Your task to perform on an android device: change the clock style Image 0: 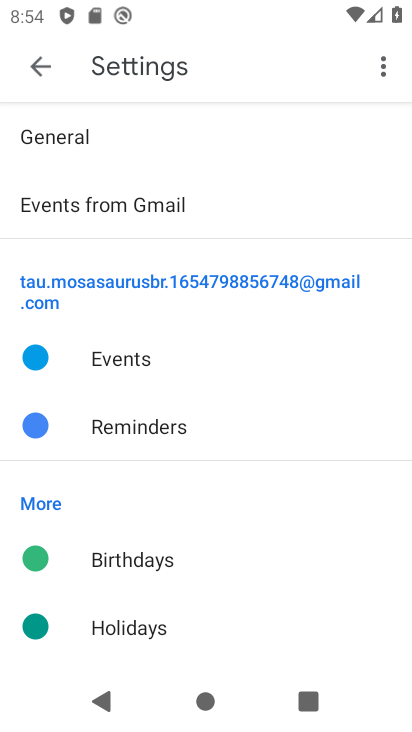
Step 0: press home button
Your task to perform on an android device: change the clock style Image 1: 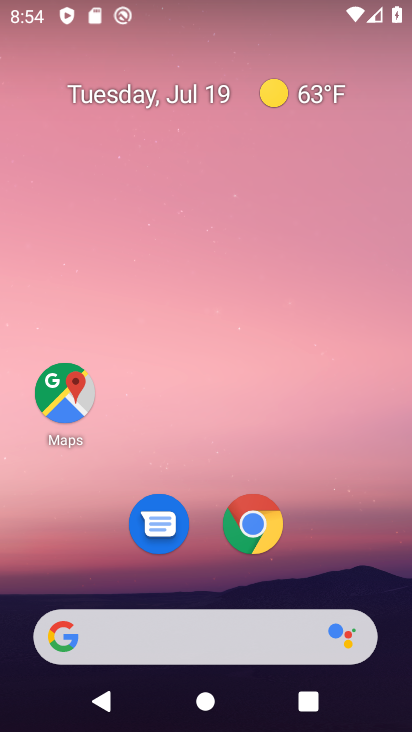
Step 1: drag from (196, 618) to (330, 145)
Your task to perform on an android device: change the clock style Image 2: 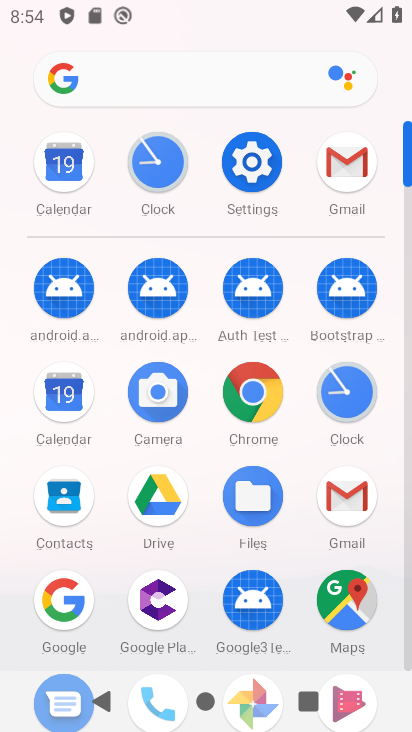
Step 2: click (156, 173)
Your task to perform on an android device: change the clock style Image 3: 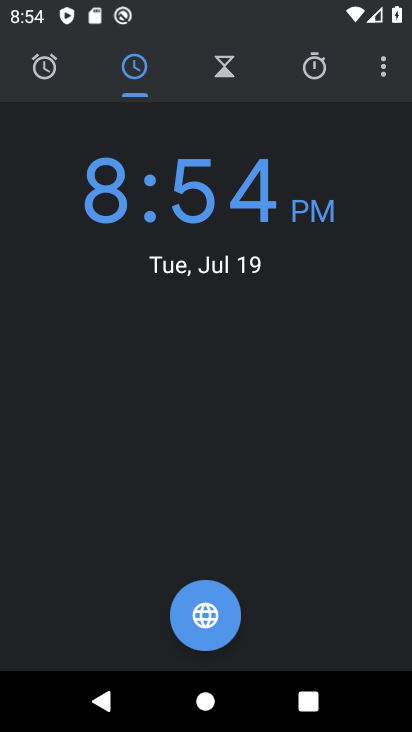
Step 3: click (383, 66)
Your task to perform on an android device: change the clock style Image 4: 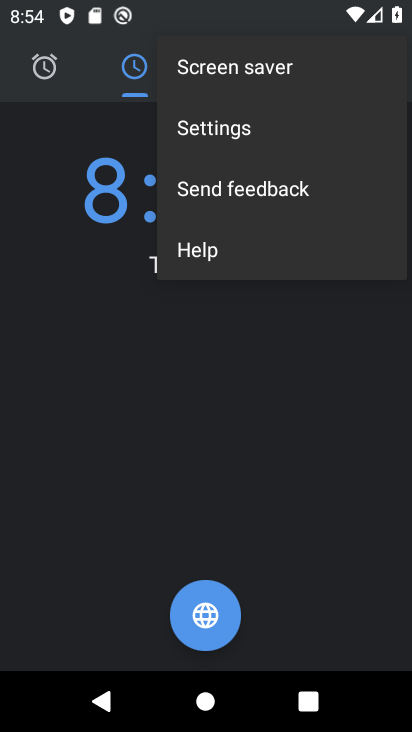
Step 4: click (221, 128)
Your task to perform on an android device: change the clock style Image 5: 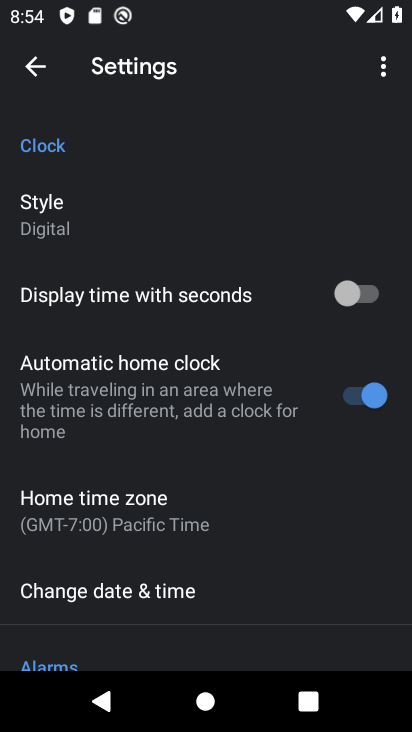
Step 5: click (65, 231)
Your task to perform on an android device: change the clock style Image 6: 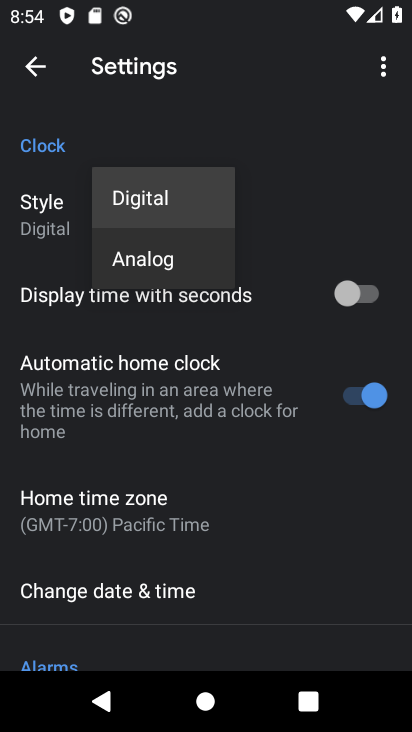
Step 6: click (153, 260)
Your task to perform on an android device: change the clock style Image 7: 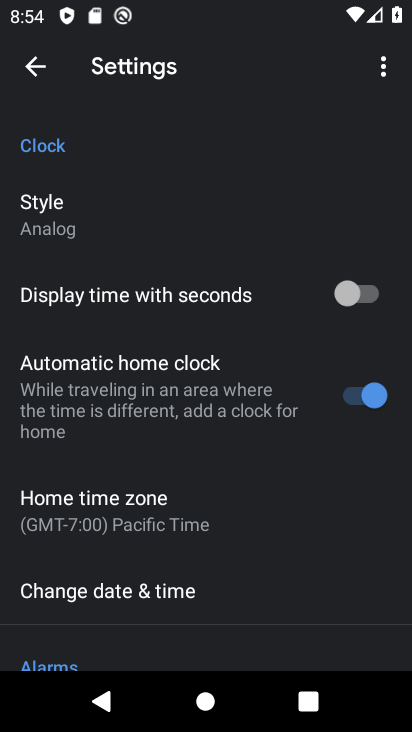
Step 7: task complete